Your task to perform on an android device: What is the recent news? Image 0: 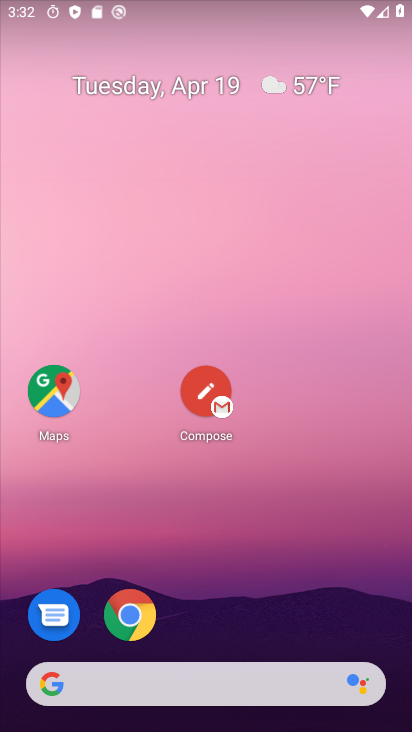
Step 0: drag from (234, 580) to (290, 95)
Your task to perform on an android device: What is the recent news? Image 1: 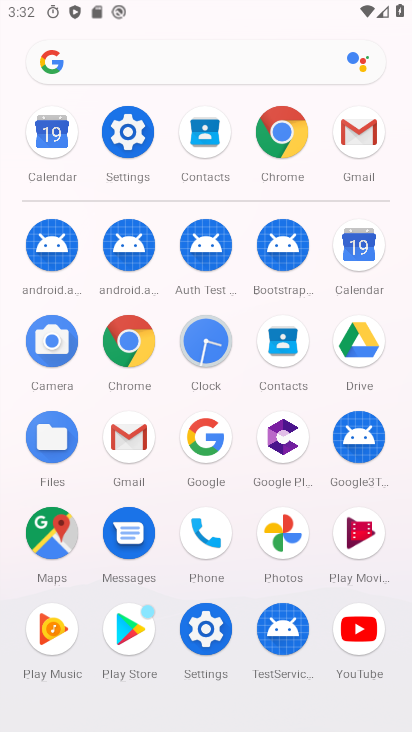
Step 1: click (130, 358)
Your task to perform on an android device: What is the recent news? Image 2: 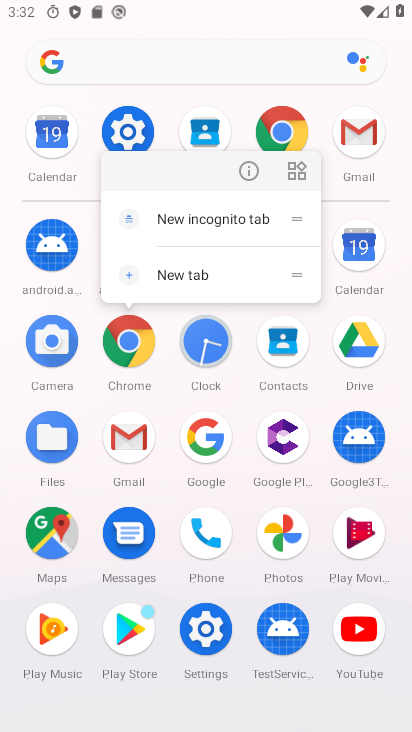
Step 2: click (130, 339)
Your task to perform on an android device: What is the recent news? Image 3: 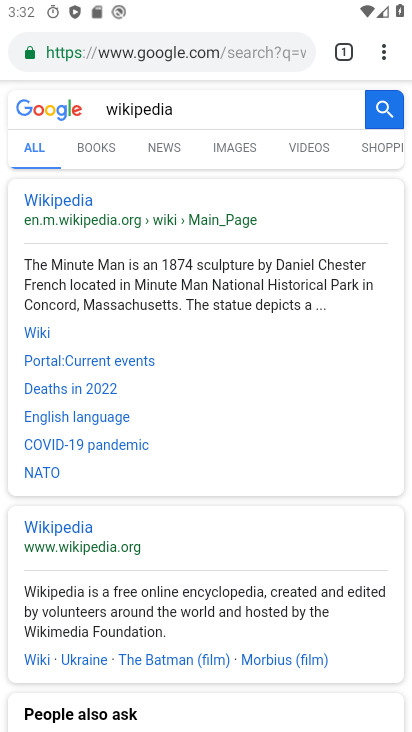
Step 3: click (259, 42)
Your task to perform on an android device: What is the recent news? Image 4: 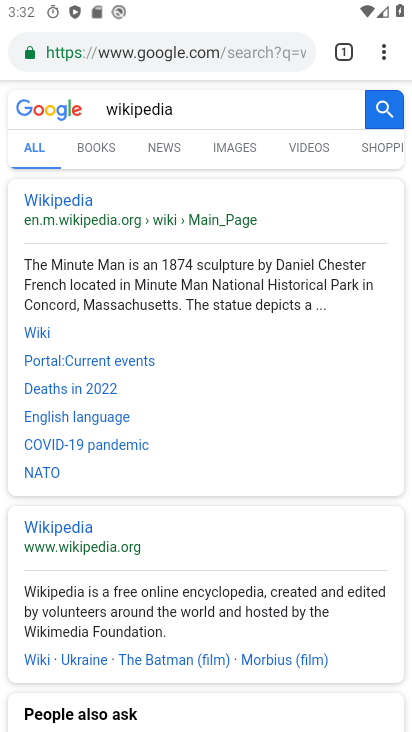
Step 4: click (258, 42)
Your task to perform on an android device: What is the recent news? Image 5: 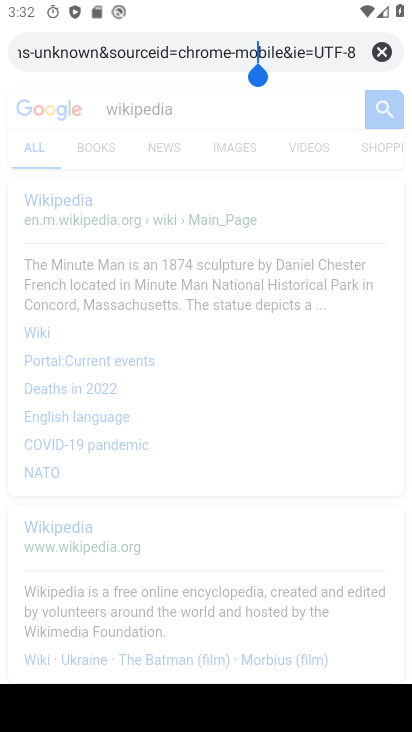
Step 5: click (375, 54)
Your task to perform on an android device: What is the recent news? Image 6: 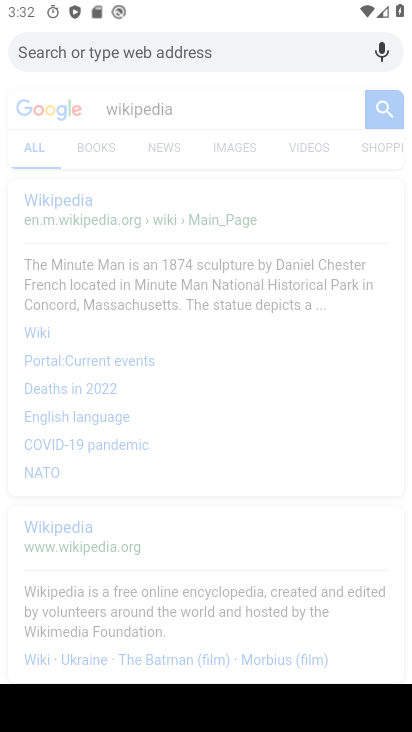
Step 6: type "recent news"
Your task to perform on an android device: What is the recent news? Image 7: 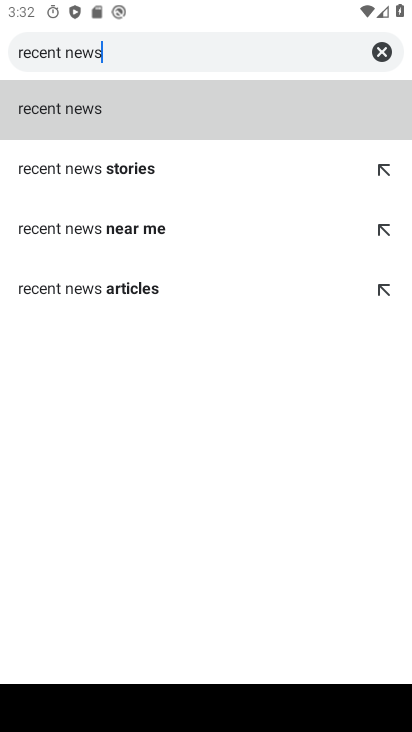
Step 7: click (206, 104)
Your task to perform on an android device: What is the recent news? Image 8: 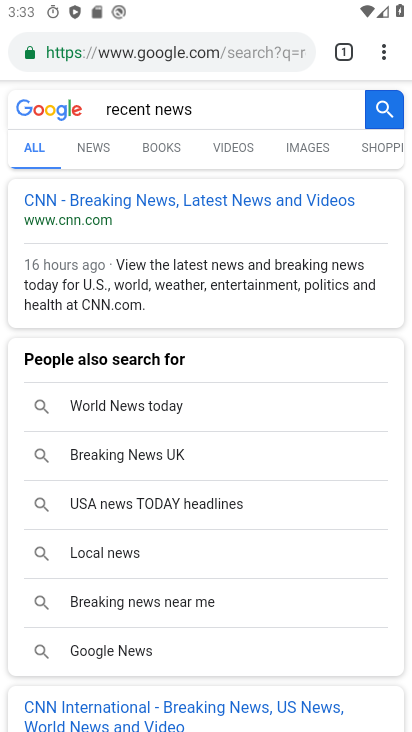
Step 8: task complete